Your task to perform on an android device: turn off improve location accuracy Image 0: 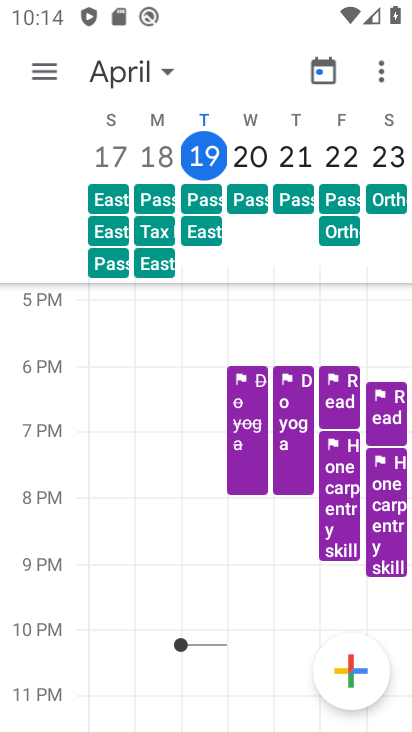
Step 0: press home button
Your task to perform on an android device: turn off improve location accuracy Image 1: 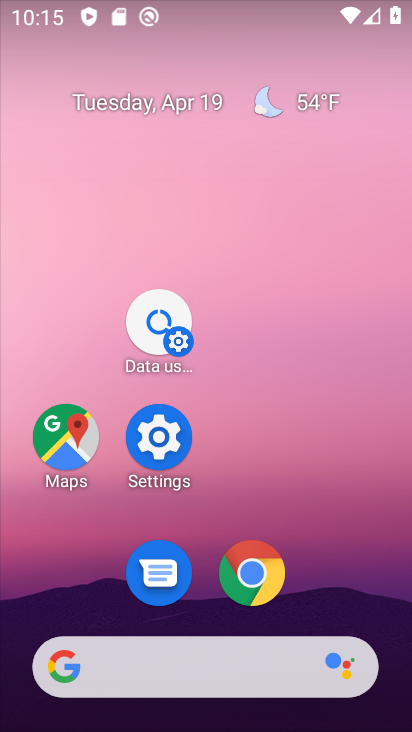
Step 1: drag from (371, 605) to (368, 0)
Your task to perform on an android device: turn off improve location accuracy Image 2: 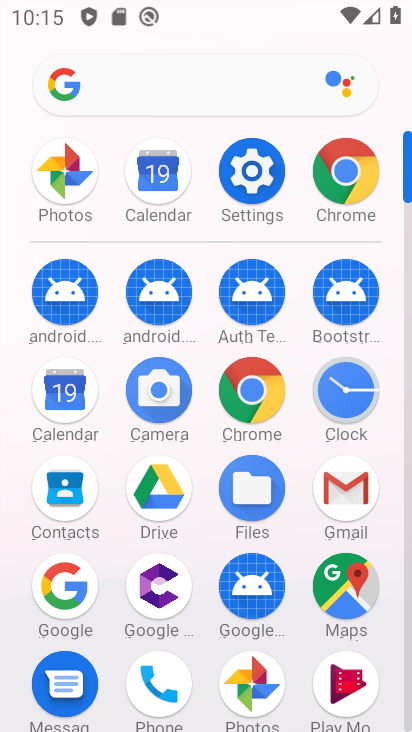
Step 2: click (261, 168)
Your task to perform on an android device: turn off improve location accuracy Image 3: 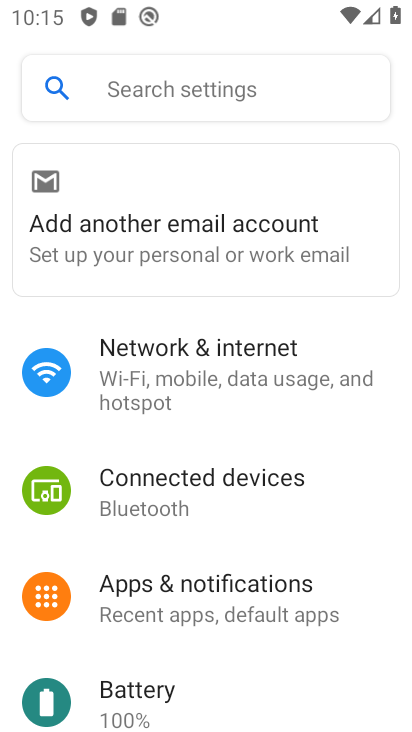
Step 3: drag from (319, 492) to (288, 98)
Your task to perform on an android device: turn off improve location accuracy Image 4: 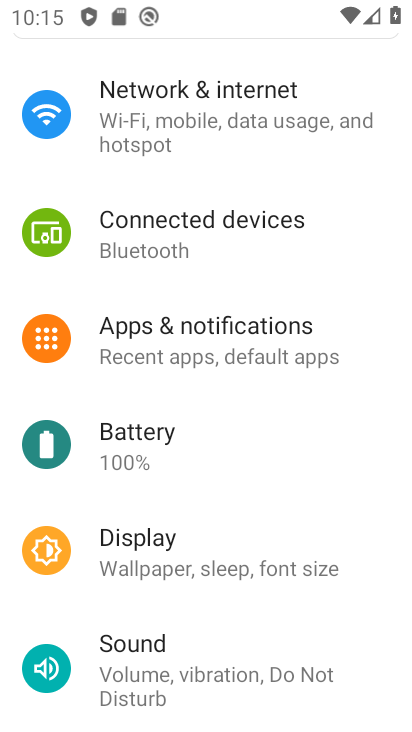
Step 4: drag from (319, 635) to (312, 179)
Your task to perform on an android device: turn off improve location accuracy Image 5: 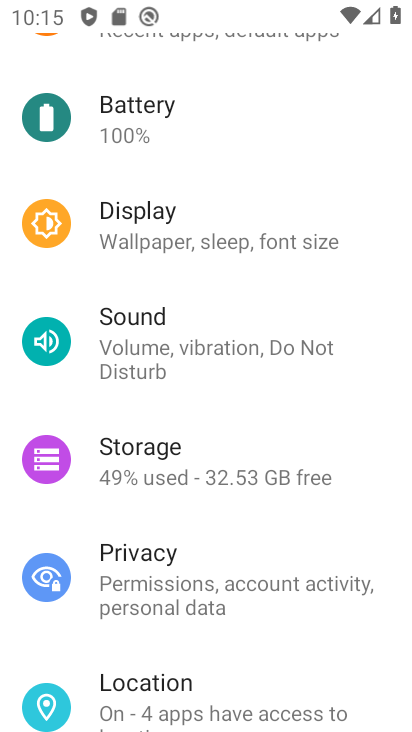
Step 5: drag from (298, 602) to (293, 312)
Your task to perform on an android device: turn off improve location accuracy Image 6: 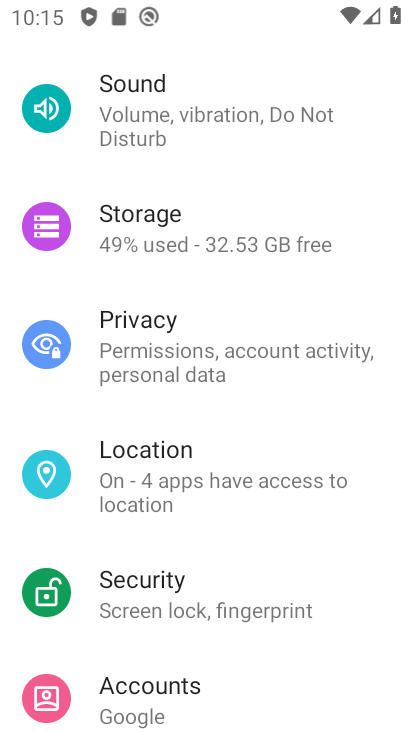
Step 6: click (128, 484)
Your task to perform on an android device: turn off improve location accuracy Image 7: 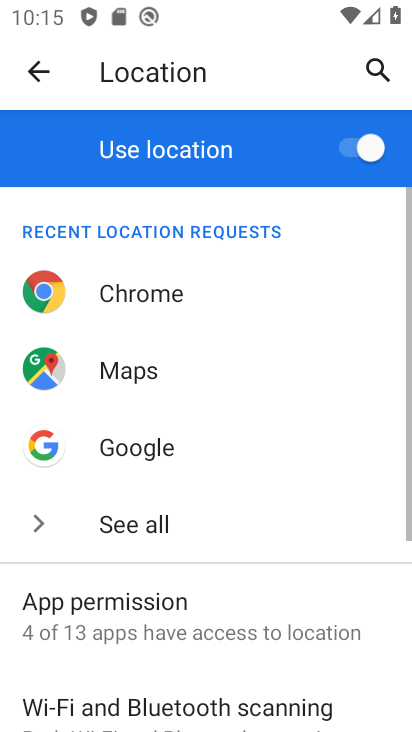
Step 7: drag from (262, 599) to (258, 377)
Your task to perform on an android device: turn off improve location accuracy Image 8: 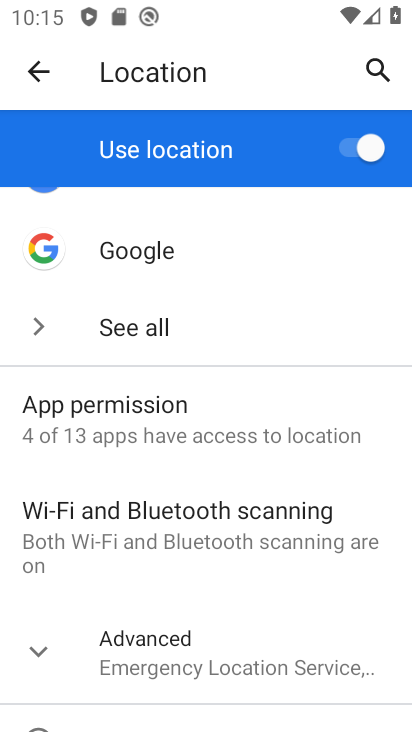
Step 8: click (34, 659)
Your task to perform on an android device: turn off improve location accuracy Image 9: 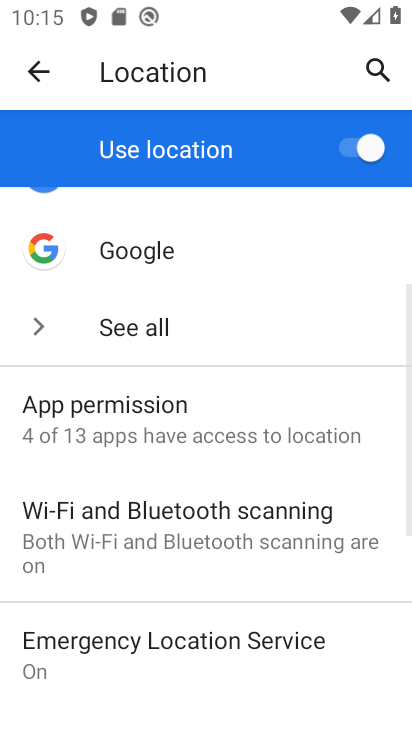
Step 9: drag from (165, 644) to (165, 307)
Your task to perform on an android device: turn off improve location accuracy Image 10: 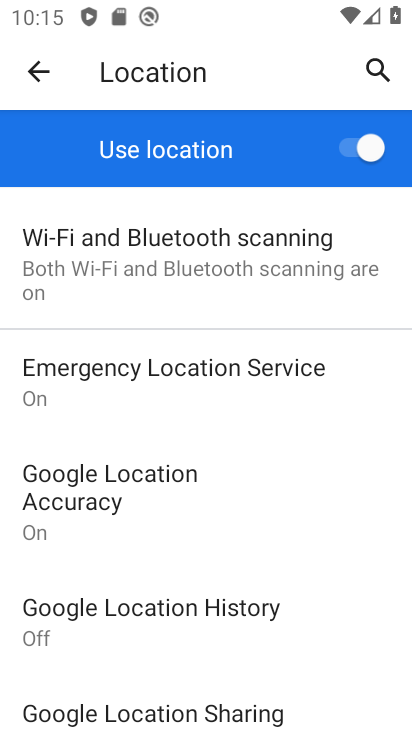
Step 10: click (84, 481)
Your task to perform on an android device: turn off improve location accuracy Image 11: 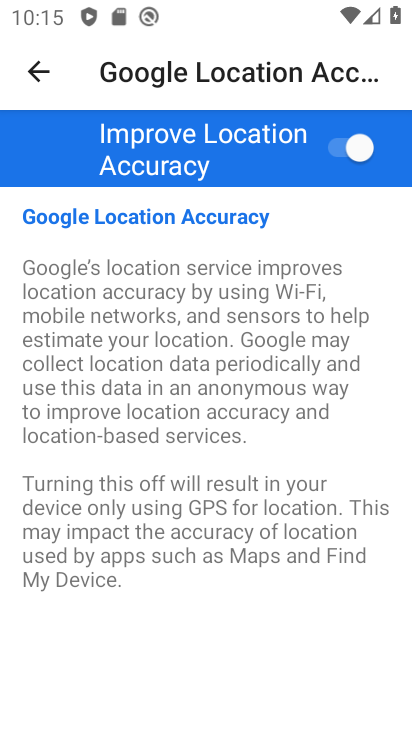
Step 11: click (359, 145)
Your task to perform on an android device: turn off improve location accuracy Image 12: 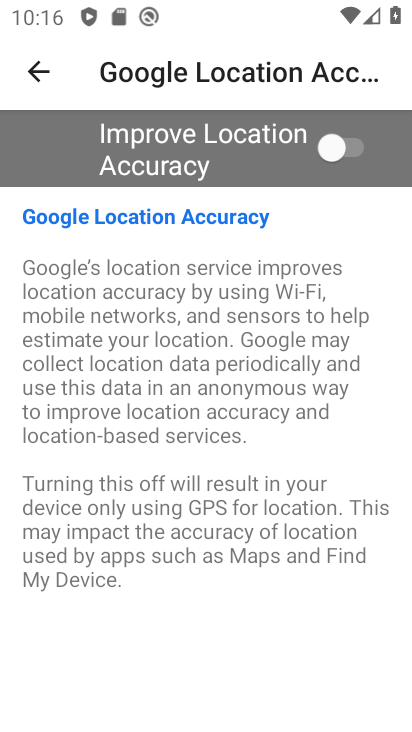
Step 12: task complete